Your task to perform on an android device: What is the recent news? Image 0: 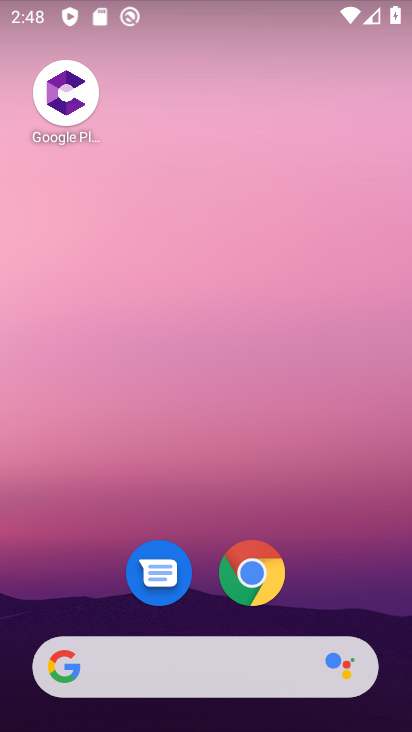
Step 0: click (174, 681)
Your task to perform on an android device: What is the recent news? Image 1: 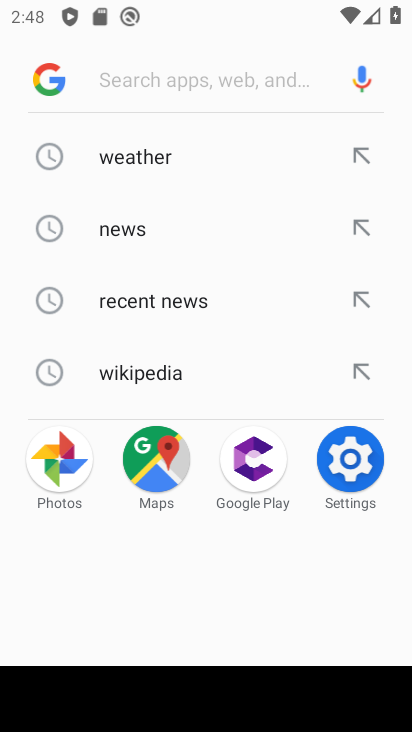
Step 1: click (102, 298)
Your task to perform on an android device: What is the recent news? Image 2: 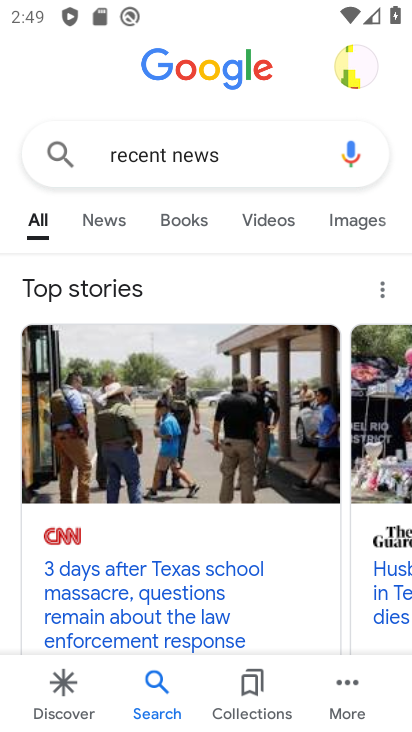
Step 2: task complete